Your task to perform on an android device: Go to Maps Image 0: 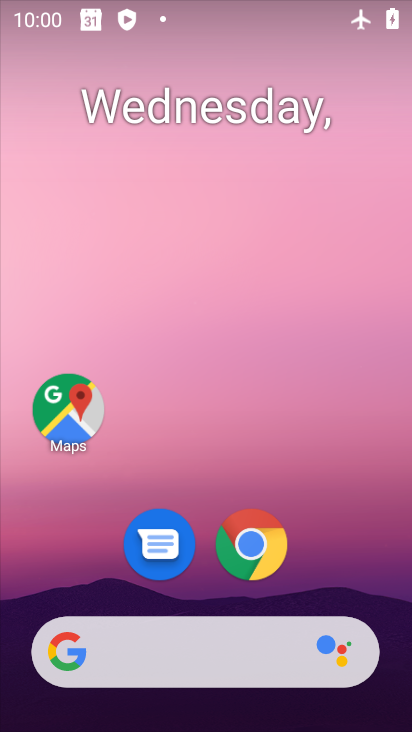
Step 0: drag from (294, 474) to (303, 23)
Your task to perform on an android device: Go to Maps Image 1: 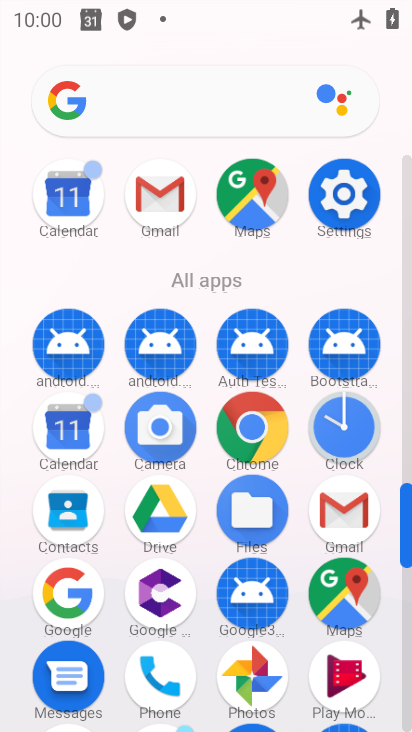
Step 1: click (353, 596)
Your task to perform on an android device: Go to Maps Image 2: 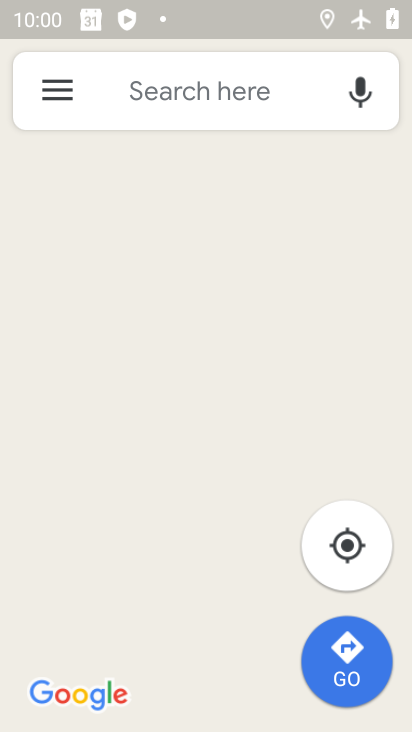
Step 2: task complete